Your task to perform on an android device: Open Chrome and go to settings Image 0: 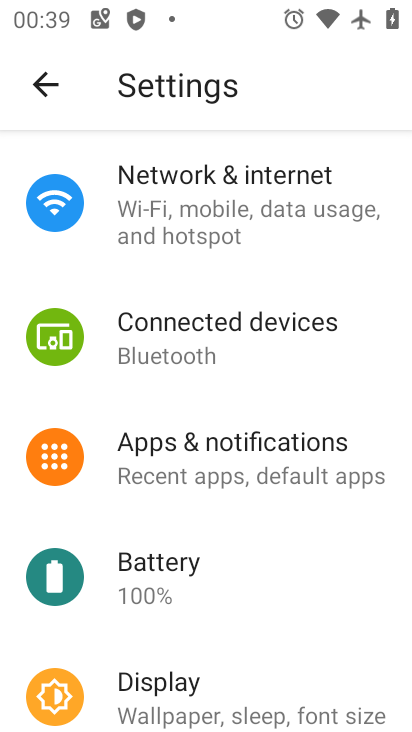
Step 0: press home button
Your task to perform on an android device: Open Chrome and go to settings Image 1: 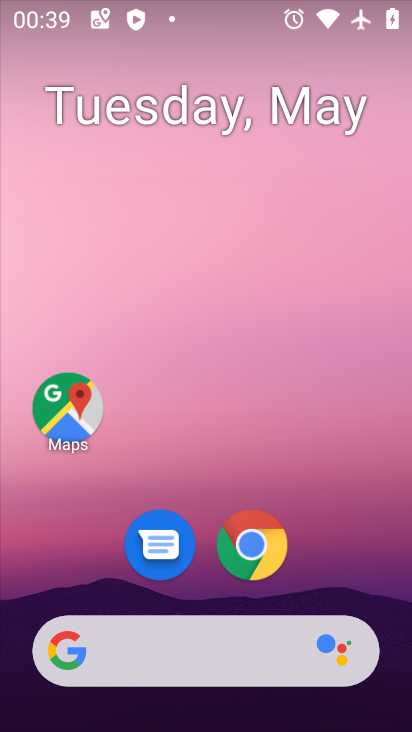
Step 1: click (256, 543)
Your task to perform on an android device: Open Chrome and go to settings Image 2: 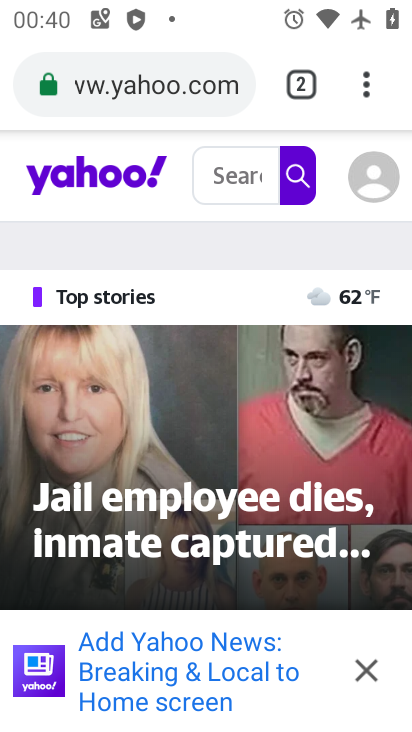
Step 2: click (357, 83)
Your task to perform on an android device: Open Chrome and go to settings Image 3: 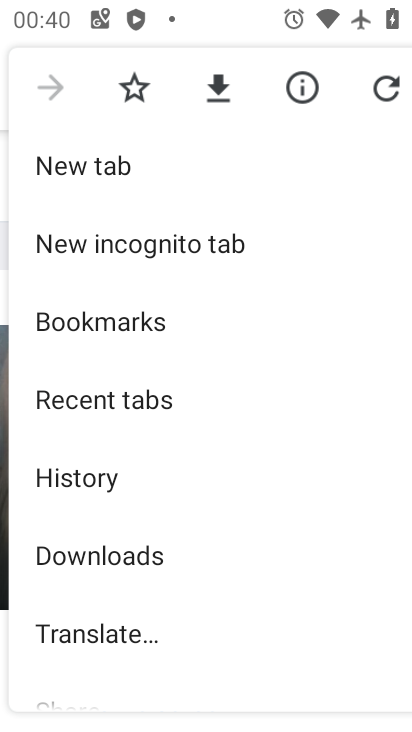
Step 3: drag from (154, 647) to (159, 359)
Your task to perform on an android device: Open Chrome and go to settings Image 4: 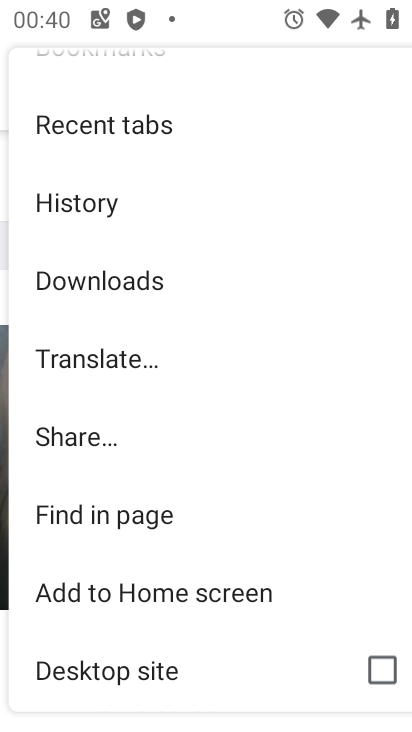
Step 4: drag from (160, 598) to (140, 394)
Your task to perform on an android device: Open Chrome and go to settings Image 5: 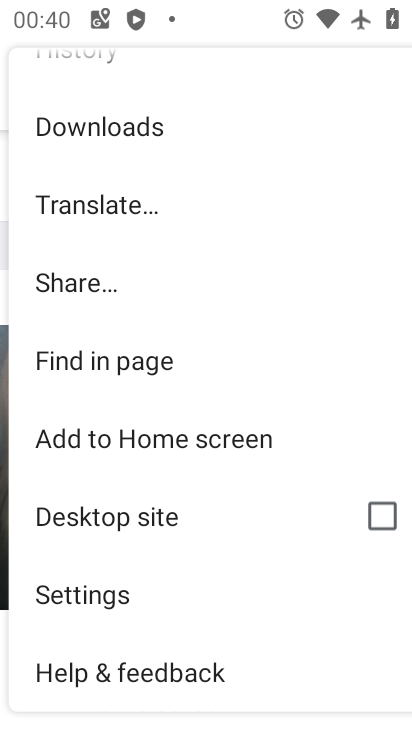
Step 5: click (167, 599)
Your task to perform on an android device: Open Chrome and go to settings Image 6: 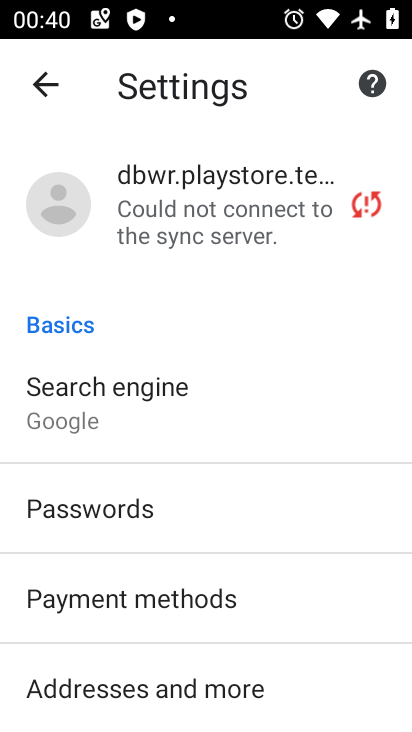
Step 6: task complete